Your task to perform on an android device: all mails in gmail Image 0: 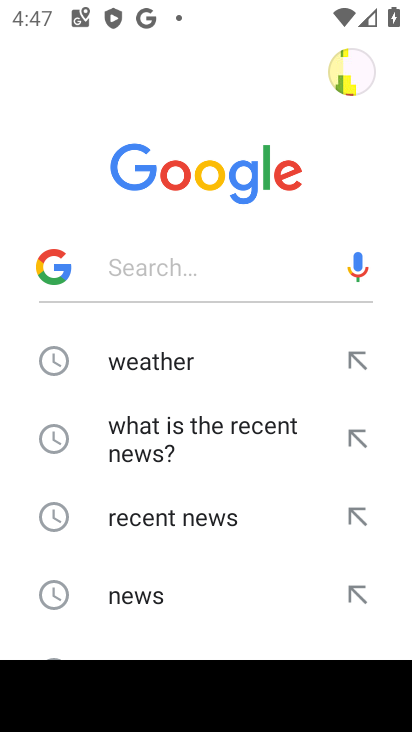
Step 0: press home button
Your task to perform on an android device: all mails in gmail Image 1: 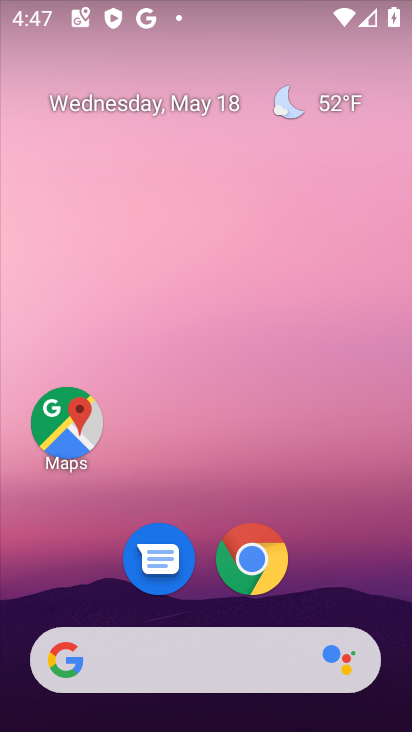
Step 1: drag from (254, 558) to (265, 56)
Your task to perform on an android device: all mails in gmail Image 2: 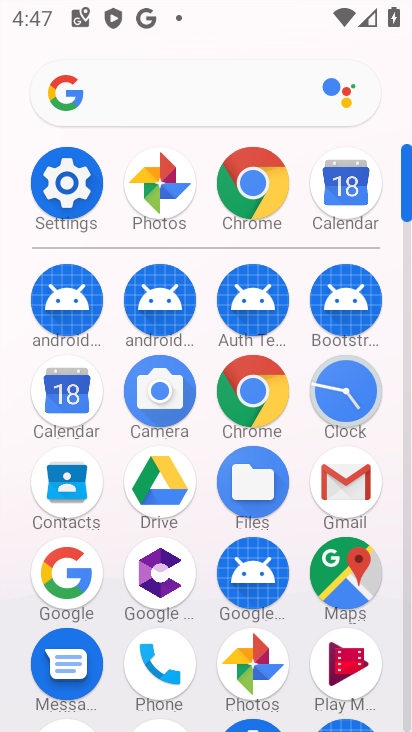
Step 2: click (344, 491)
Your task to perform on an android device: all mails in gmail Image 3: 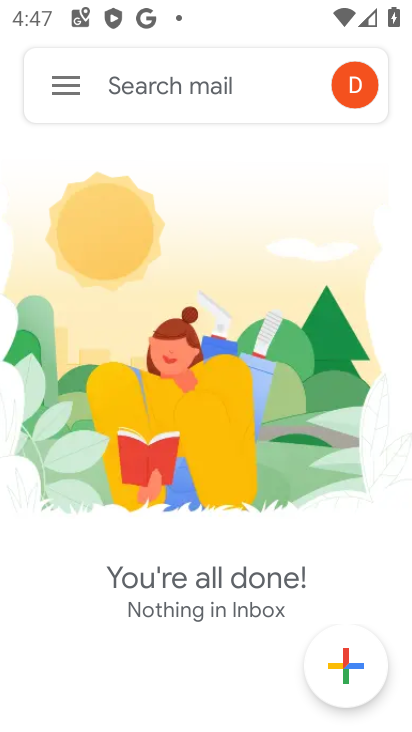
Step 3: click (42, 87)
Your task to perform on an android device: all mails in gmail Image 4: 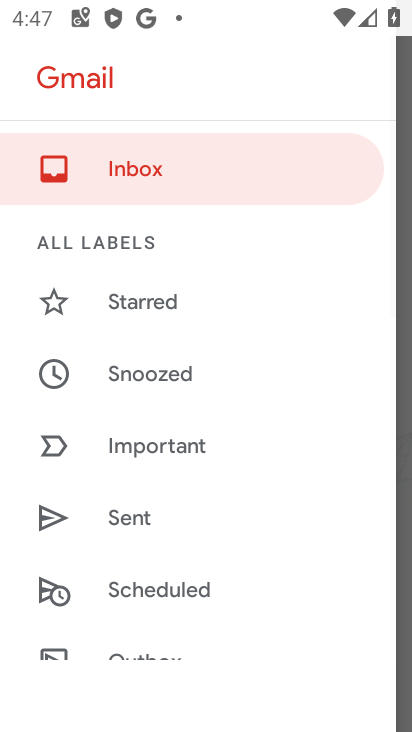
Step 4: drag from (145, 572) to (314, 50)
Your task to perform on an android device: all mails in gmail Image 5: 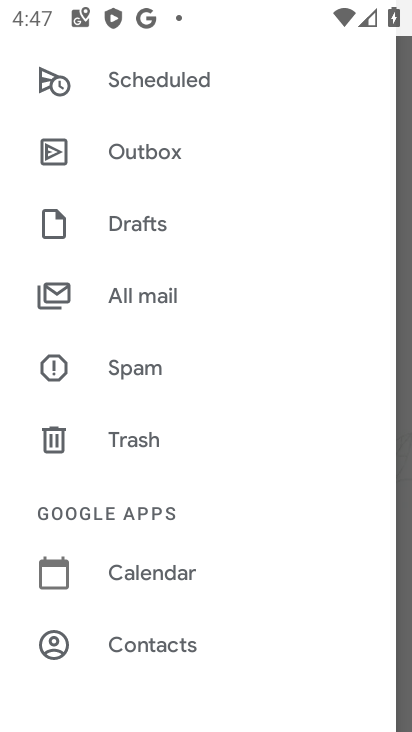
Step 5: click (122, 296)
Your task to perform on an android device: all mails in gmail Image 6: 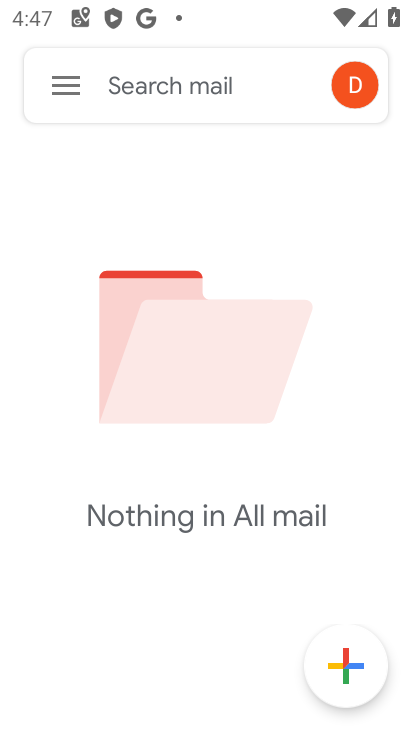
Step 6: task complete